Your task to perform on an android device: turn smart compose on in the gmail app Image 0: 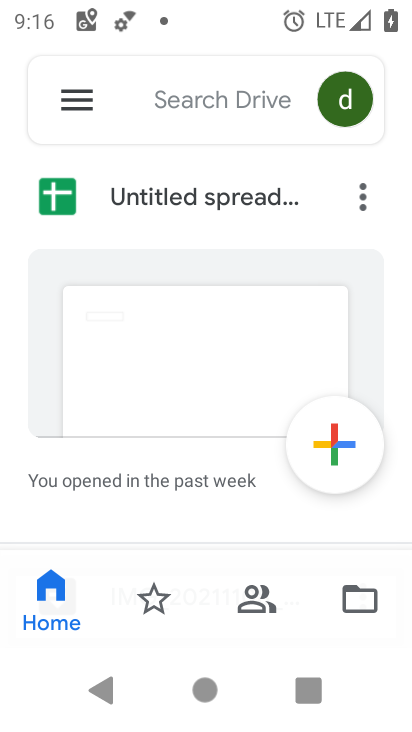
Step 0: press home button
Your task to perform on an android device: turn smart compose on in the gmail app Image 1: 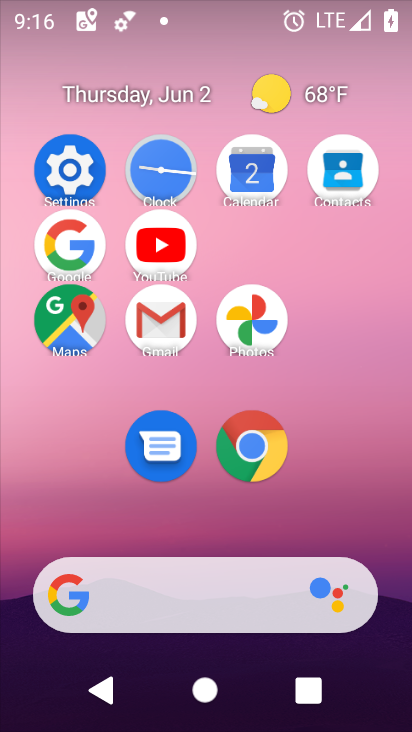
Step 1: click (169, 321)
Your task to perform on an android device: turn smart compose on in the gmail app Image 2: 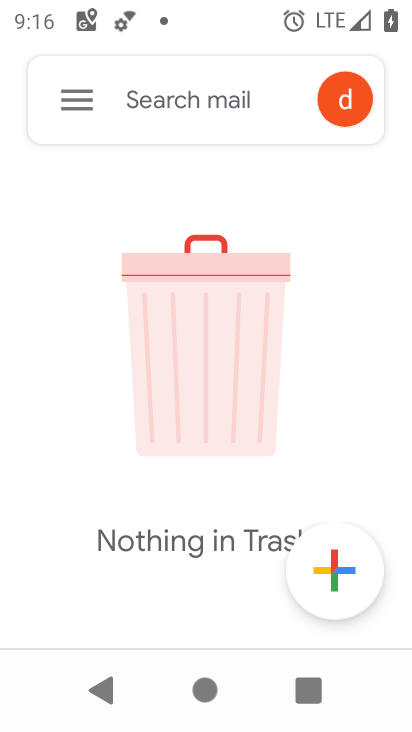
Step 2: click (49, 106)
Your task to perform on an android device: turn smart compose on in the gmail app Image 3: 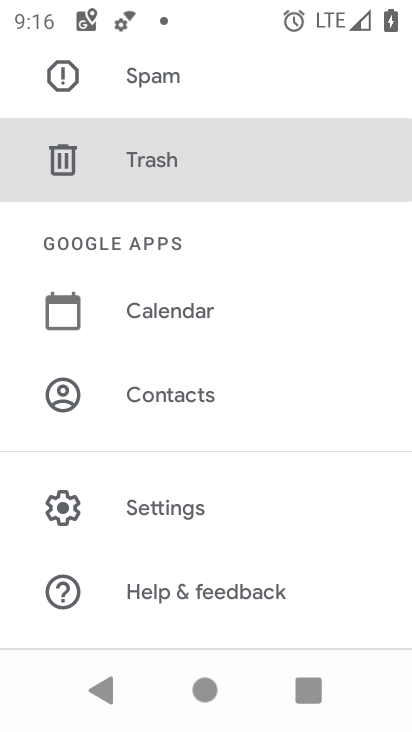
Step 3: click (262, 532)
Your task to perform on an android device: turn smart compose on in the gmail app Image 4: 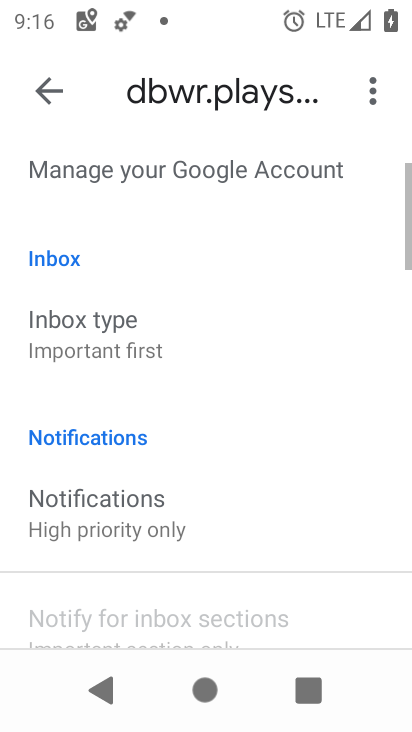
Step 4: task complete